Your task to perform on an android device: turn on the 24-hour format for clock Image 0: 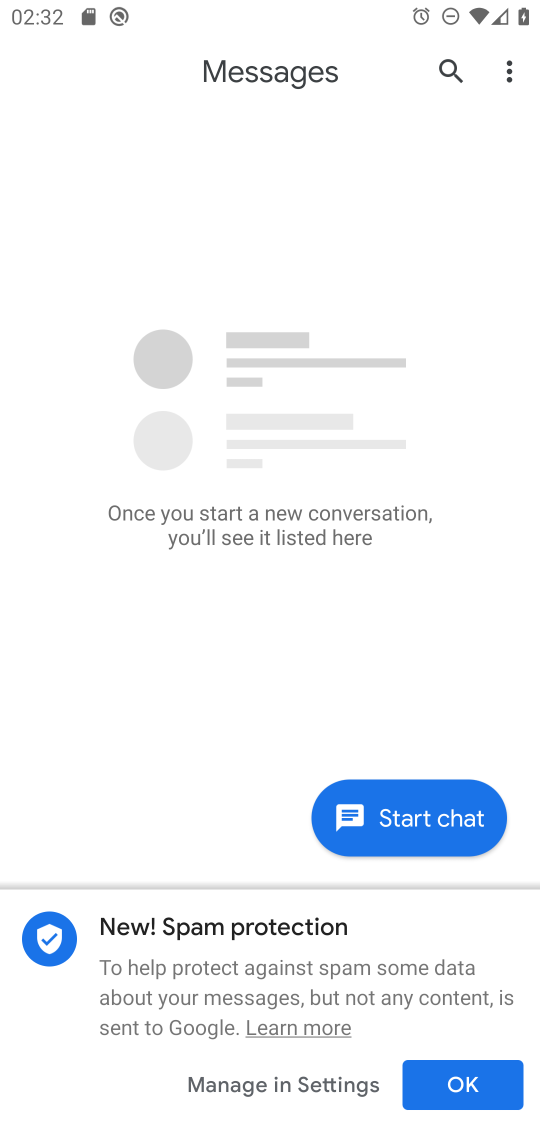
Step 0: press home button
Your task to perform on an android device: turn on the 24-hour format for clock Image 1: 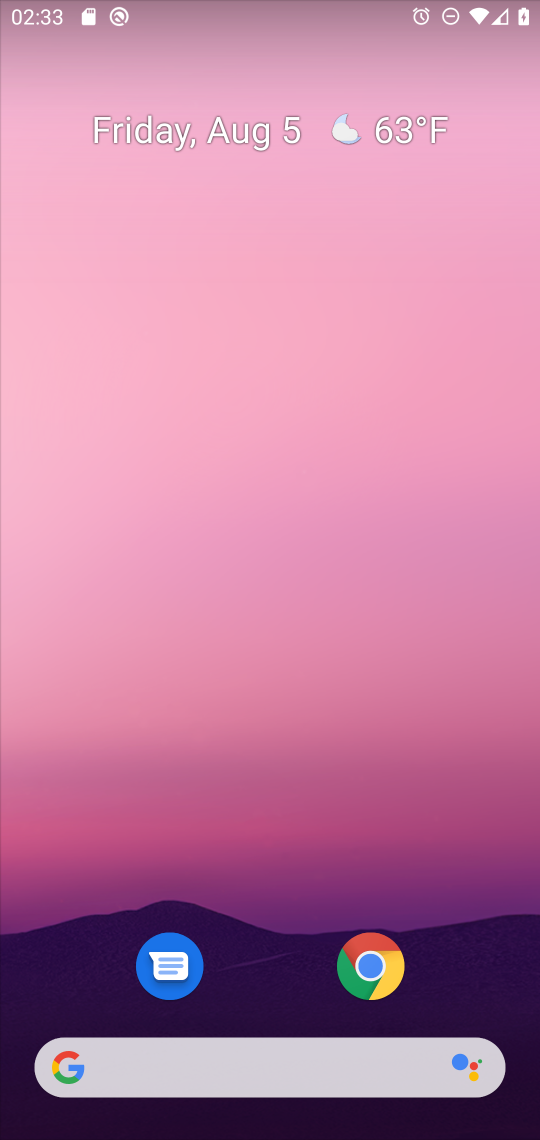
Step 1: drag from (254, 941) to (285, 24)
Your task to perform on an android device: turn on the 24-hour format for clock Image 2: 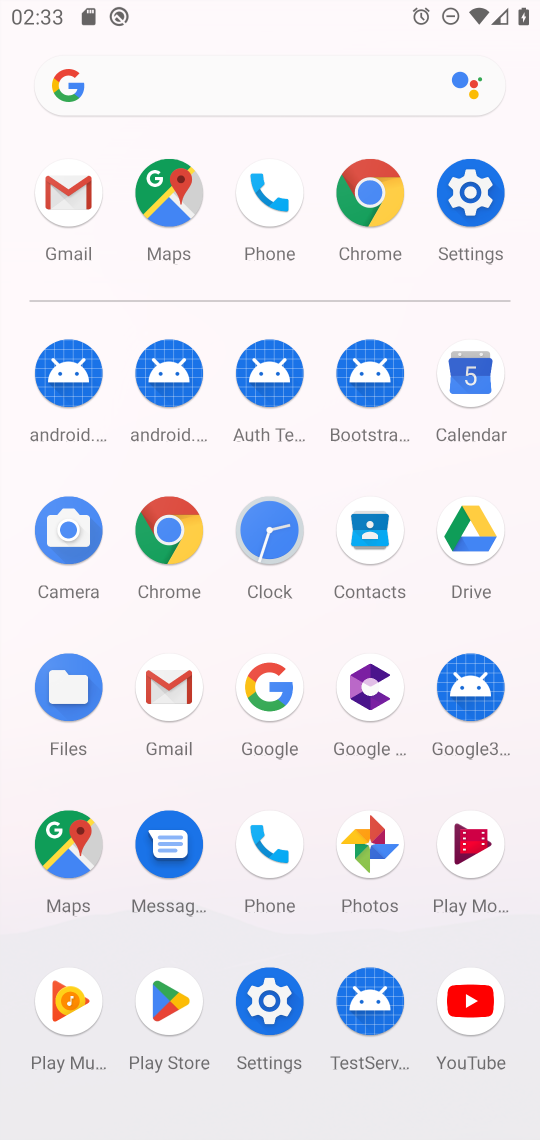
Step 2: click (268, 515)
Your task to perform on an android device: turn on the 24-hour format for clock Image 3: 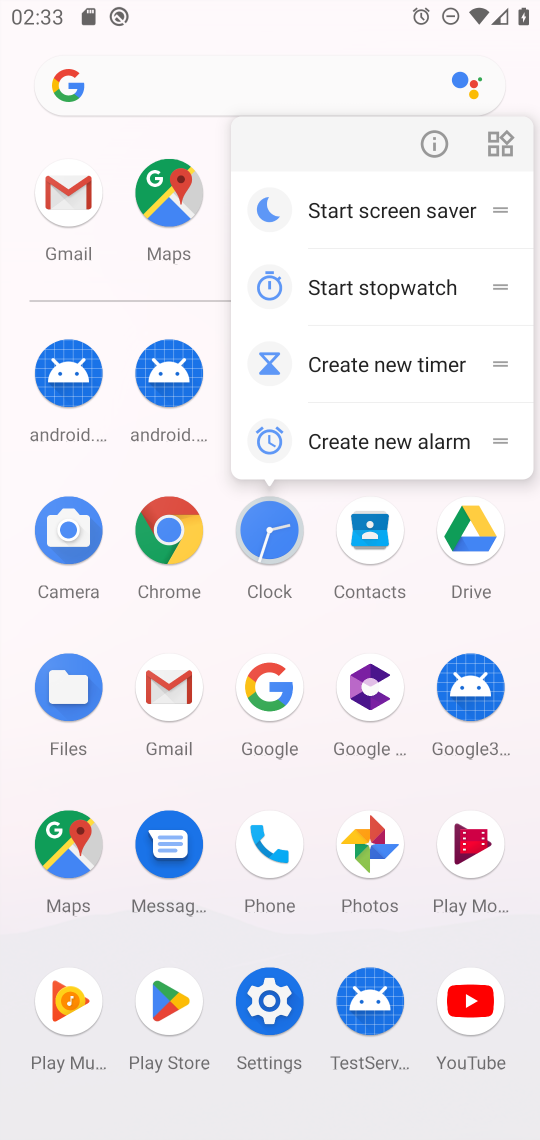
Step 3: click (271, 529)
Your task to perform on an android device: turn on the 24-hour format for clock Image 4: 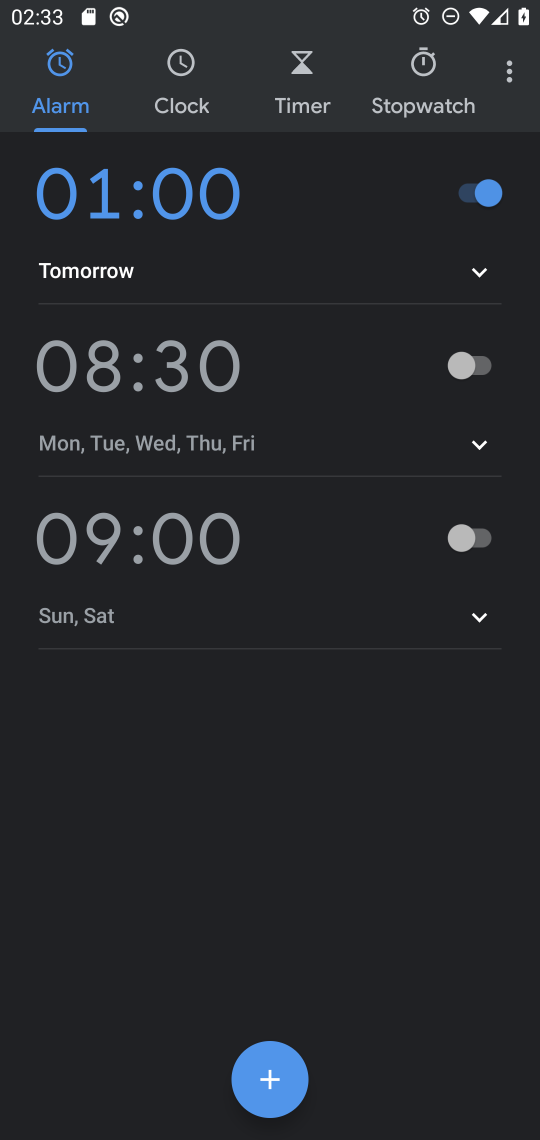
Step 4: click (516, 77)
Your task to perform on an android device: turn on the 24-hour format for clock Image 5: 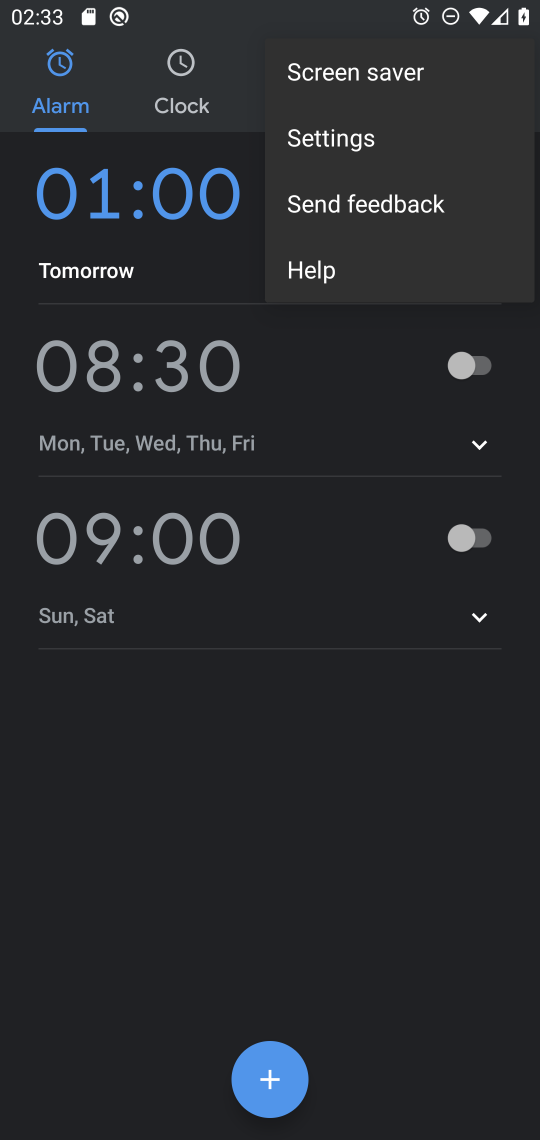
Step 5: click (388, 141)
Your task to perform on an android device: turn on the 24-hour format for clock Image 6: 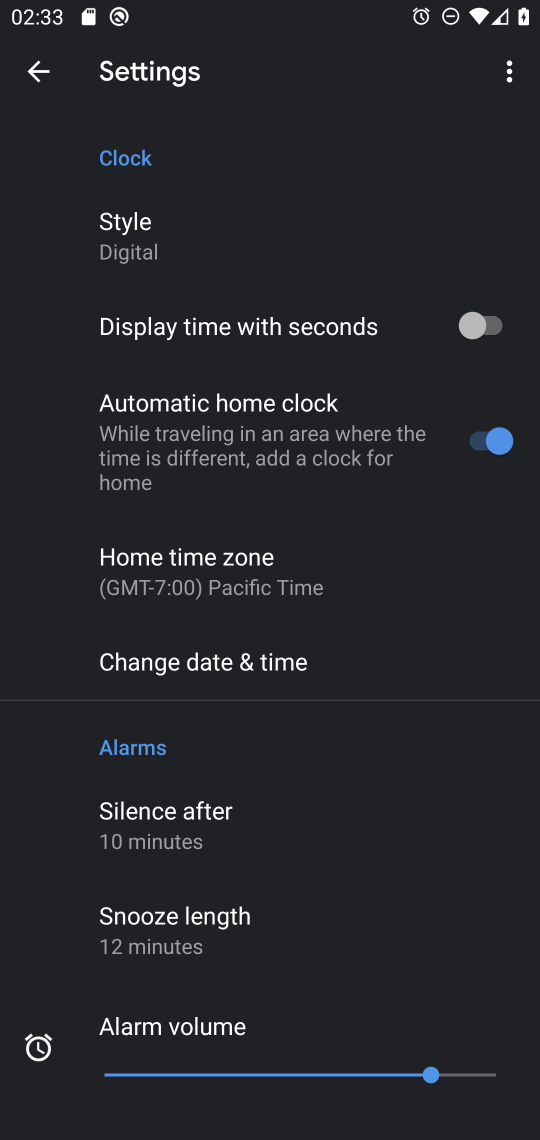
Step 6: click (361, 663)
Your task to perform on an android device: turn on the 24-hour format for clock Image 7: 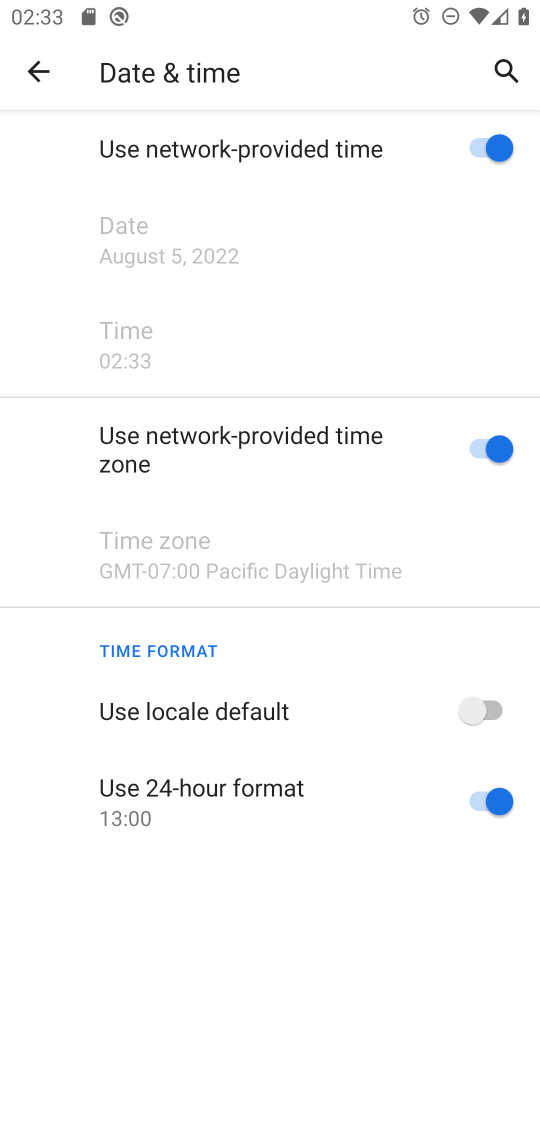
Step 7: task complete